Your task to perform on an android device: Empty the shopping cart on costco. Image 0: 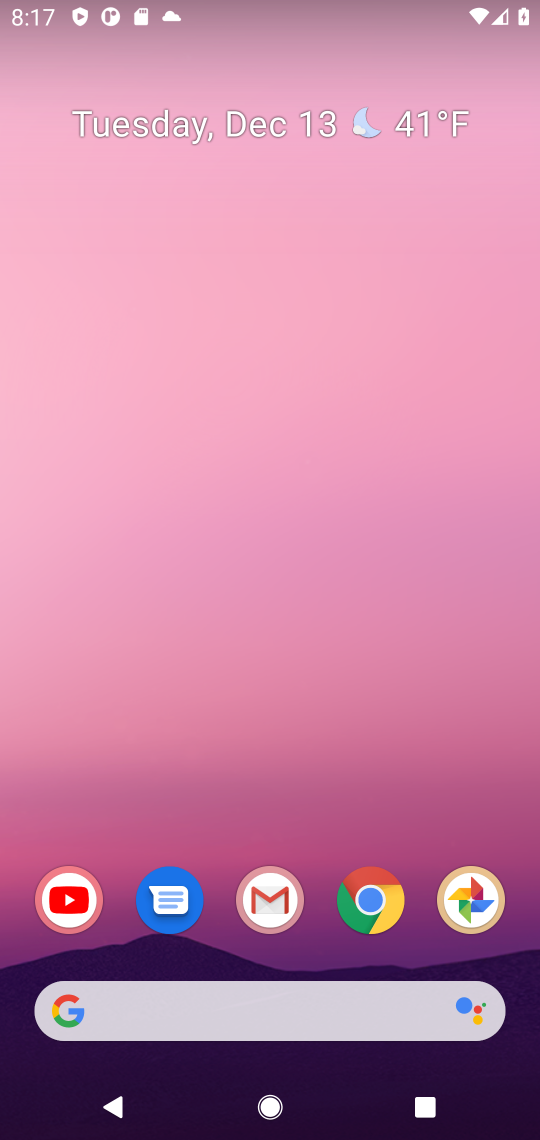
Step 0: task complete